Your task to perform on an android device: Show me recent news Image 0: 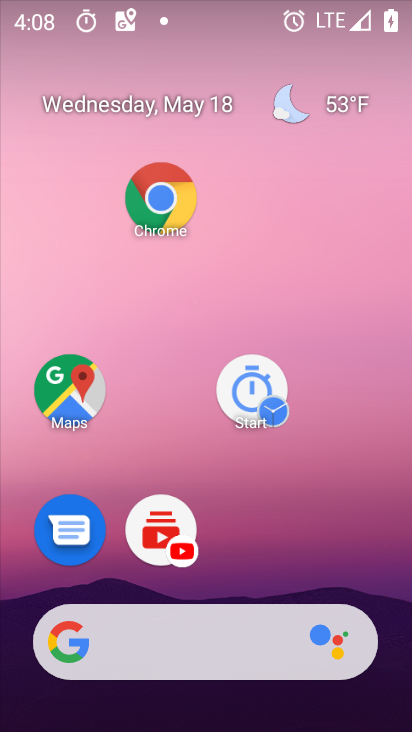
Step 0: drag from (282, 526) to (291, 328)
Your task to perform on an android device: Show me recent news Image 1: 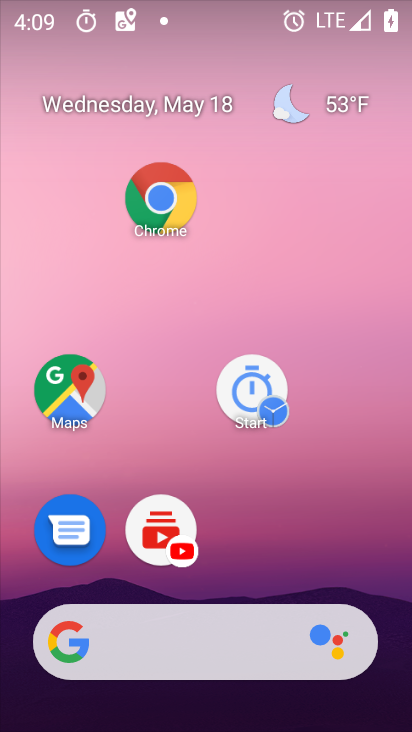
Step 1: drag from (273, 649) to (196, 66)
Your task to perform on an android device: Show me recent news Image 2: 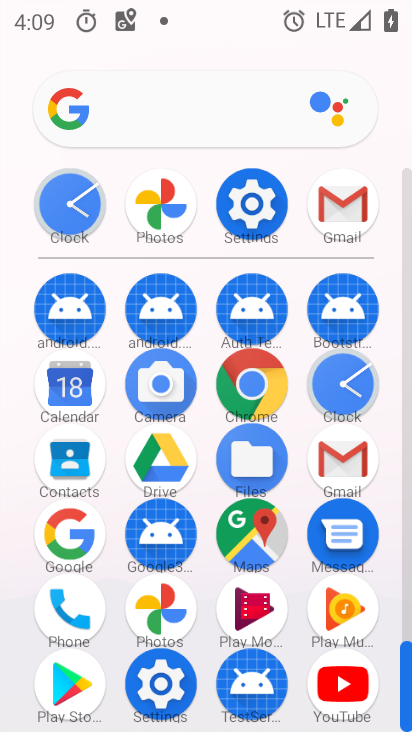
Step 2: press back button
Your task to perform on an android device: Show me recent news Image 3: 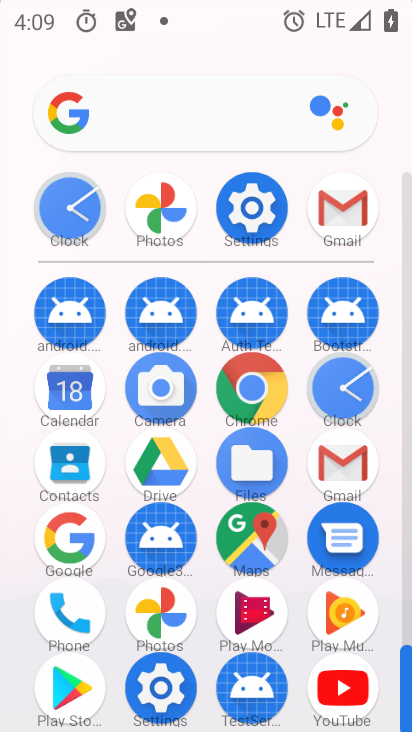
Step 3: press back button
Your task to perform on an android device: Show me recent news Image 4: 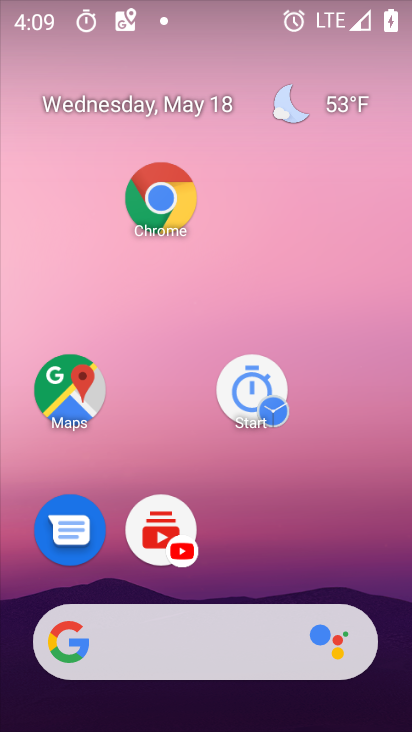
Step 4: drag from (4, 222) to (381, 425)
Your task to perform on an android device: Show me recent news Image 5: 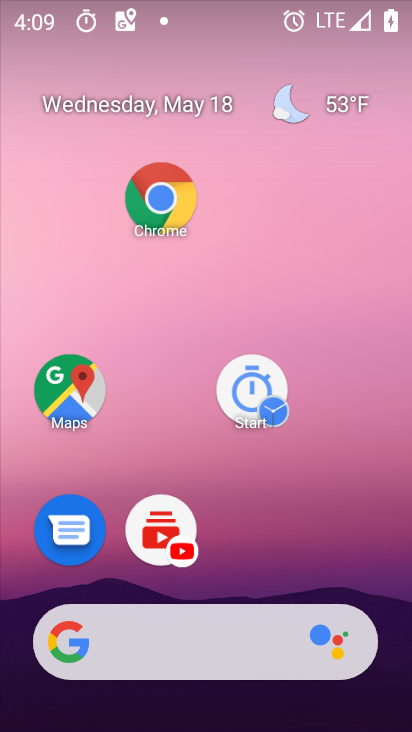
Step 5: drag from (0, 244) to (401, 354)
Your task to perform on an android device: Show me recent news Image 6: 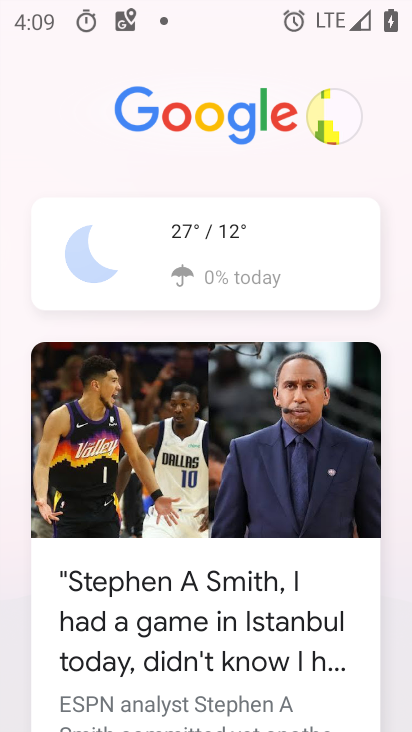
Step 6: click (167, 259)
Your task to perform on an android device: Show me recent news Image 7: 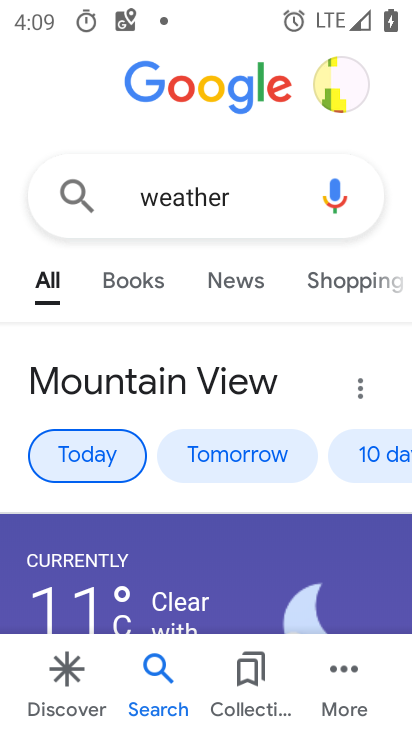
Step 7: task complete